Your task to perform on an android device: choose inbox layout in the gmail app Image 0: 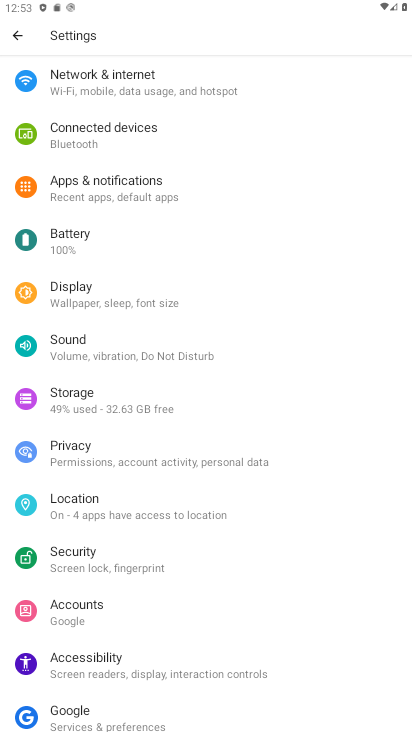
Step 0: press home button
Your task to perform on an android device: choose inbox layout in the gmail app Image 1: 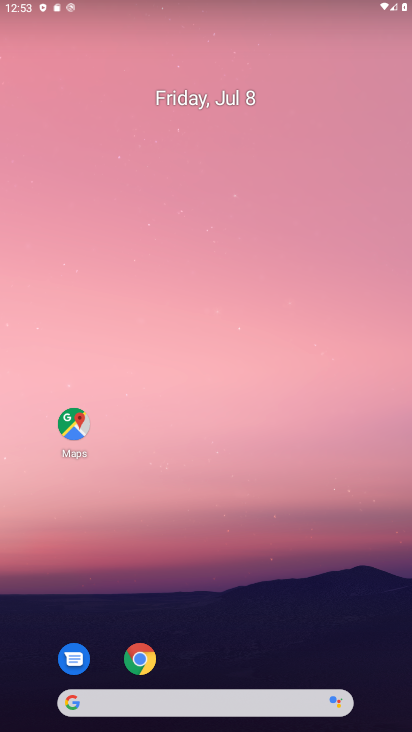
Step 1: drag from (238, 670) to (268, 98)
Your task to perform on an android device: choose inbox layout in the gmail app Image 2: 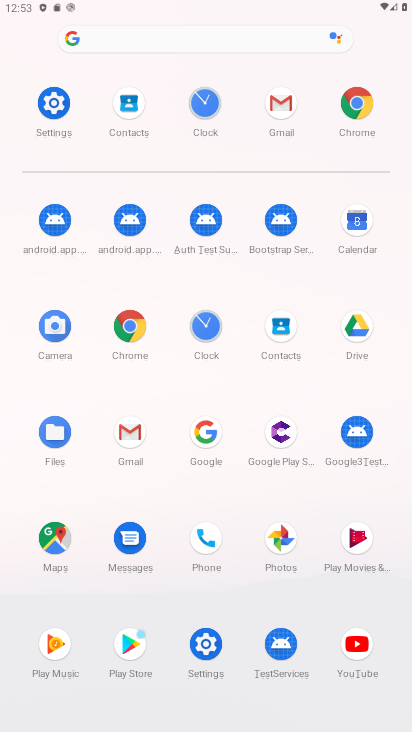
Step 2: click (124, 432)
Your task to perform on an android device: choose inbox layout in the gmail app Image 3: 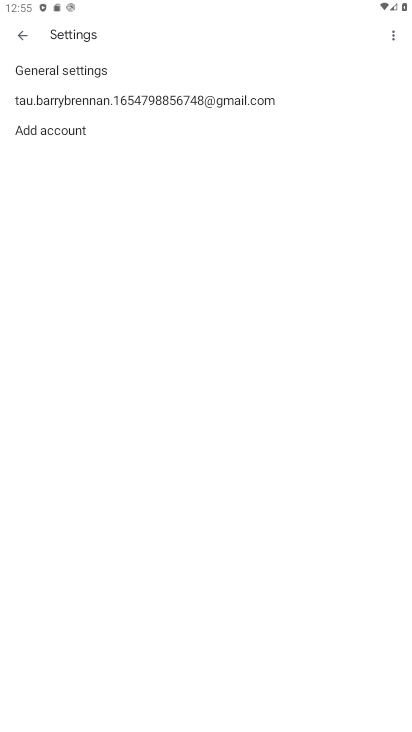
Step 3: task complete